Your task to perform on an android device: toggle show notifications on the lock screen Image 0: 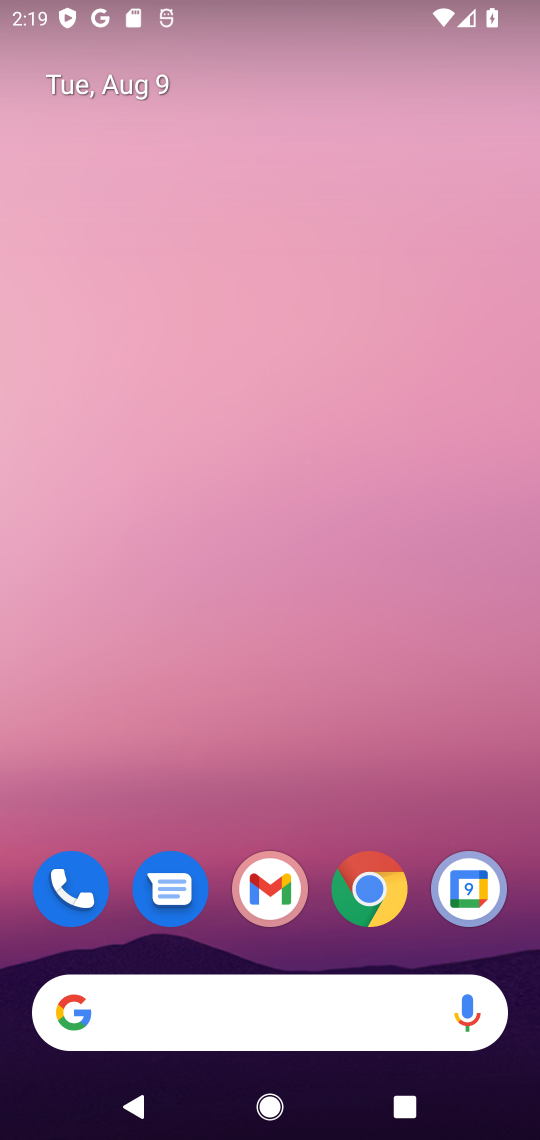
Step 0: drag from (220, 789) to (305, 0)
Your task to perform on an android device: toggle show notifications on the lock screen Image 1: 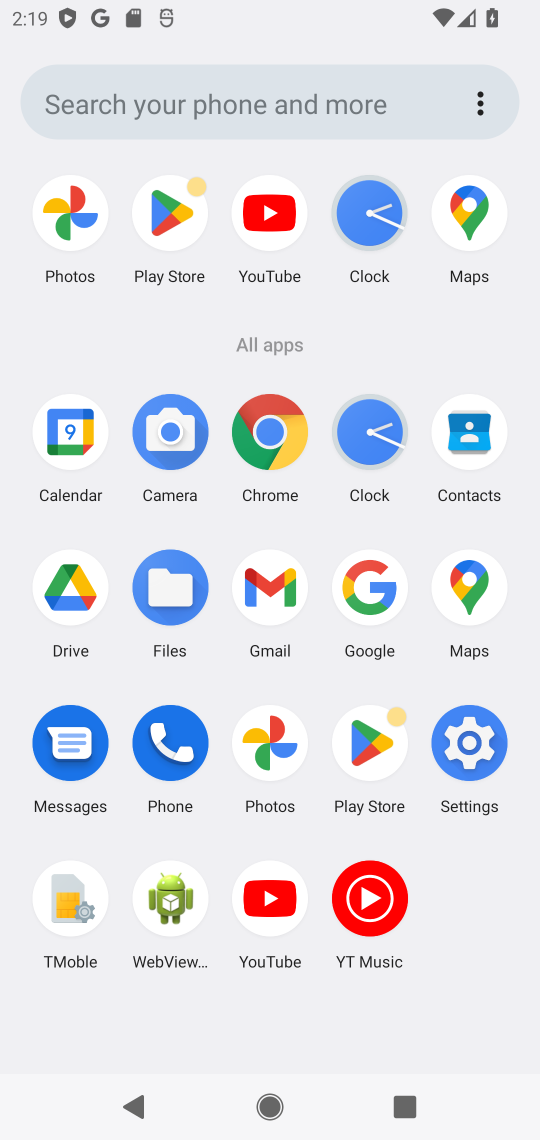
Step 1: click (482, 749)
Your task to perform on an android device: toggle show notifications on the lock screen Image 2: 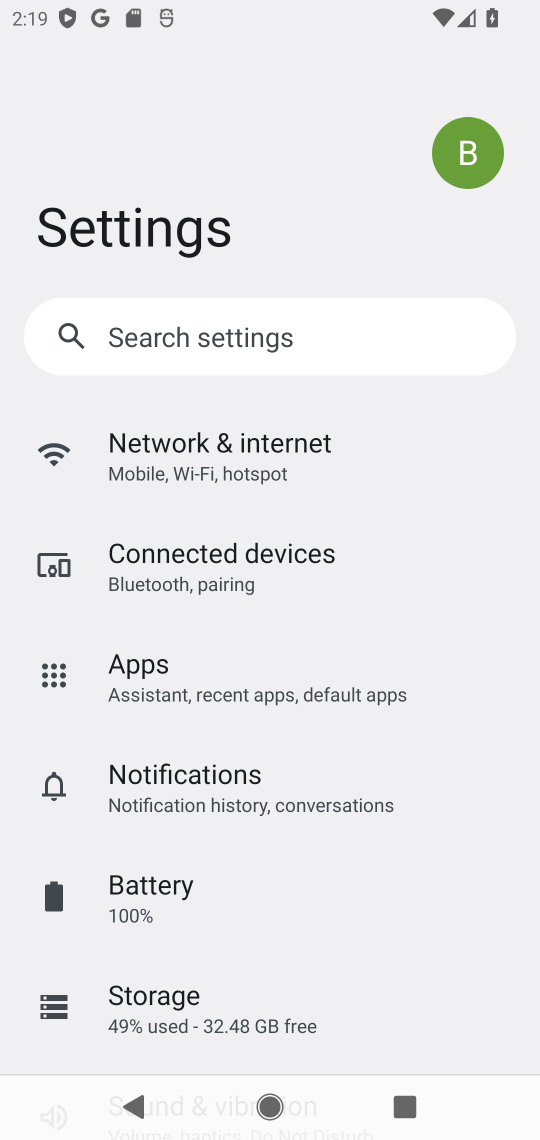
Step 2: click (346, 776)
Your task to perform on an android device: toggle show notifications on the lock screen Image 3: 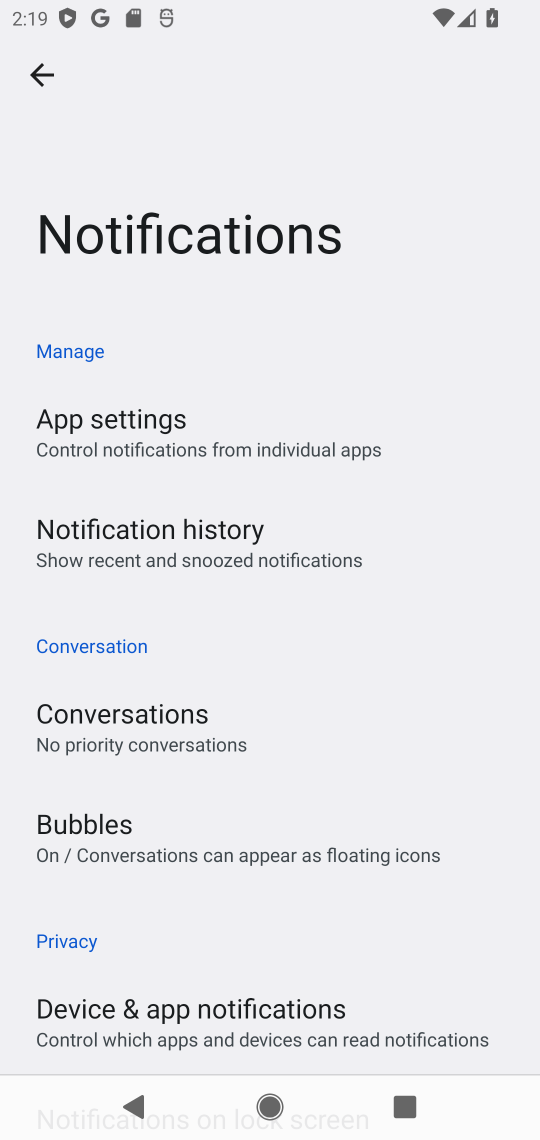
Step 3: task complete